Your task to perform on an android device: see tabs open on other devices in the chrome app Image 0: 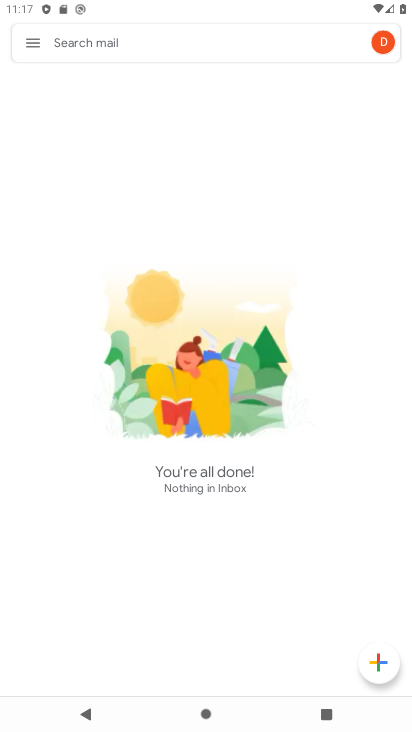
Step 0: press home button
Your task to perform on an android device: see tabs open on other devices in the chrome app Image 1: 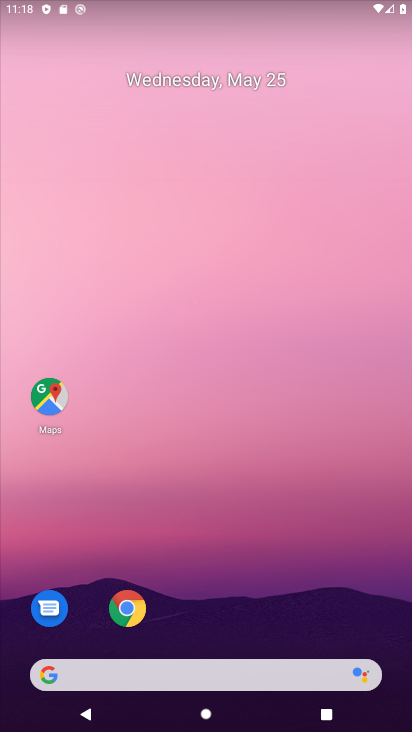
Step 1: click (132, 610)
Your task to perform on an android device: see tabs open on other devices in the chrome app Image 2: 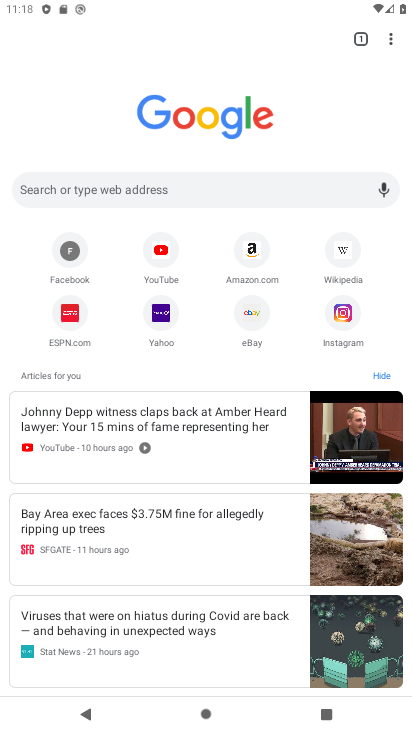
Step 2: click (402, 36)
Your task to perform on an android device: see tabs open on other devices in the chrome app Image 3: 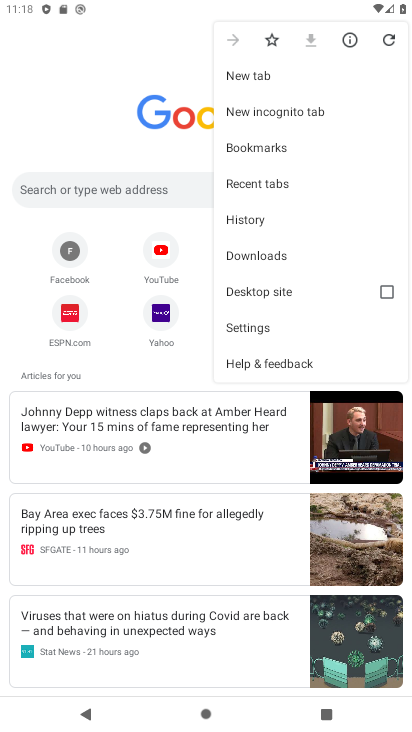
Step 3: click (253, 330)
Your task to perform on an android device: see tabs open on other devices in the chrome app Image 4: 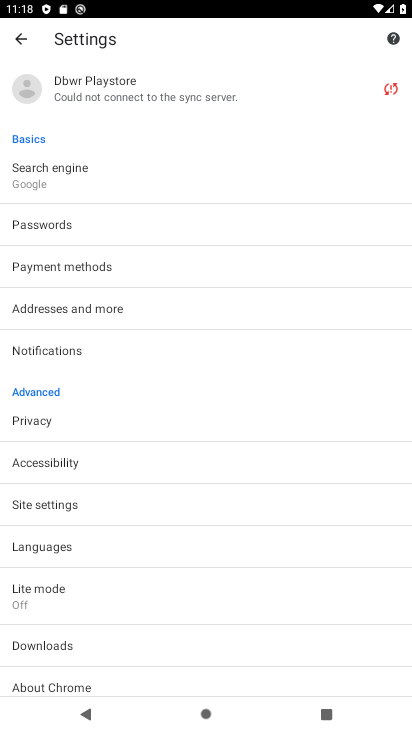
Step 4: click (12, 35)
Your task to perform on an android device: see tabs open on other devices in the chrome app Image 5: 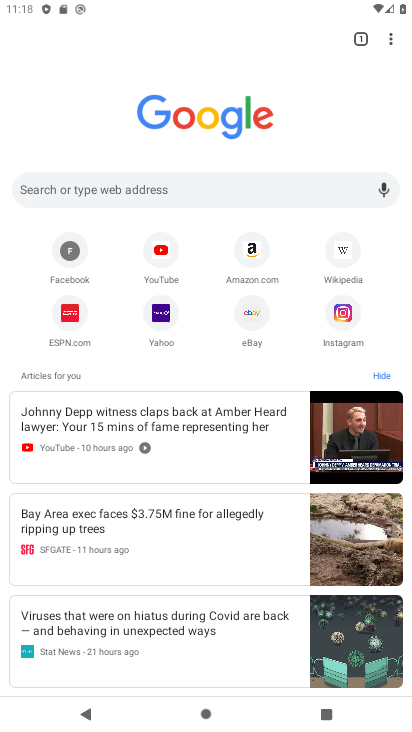
Step 5: click (389, 33)
Your task to perform on an android device: see tabs open on other devices in the chrome app Image 6: 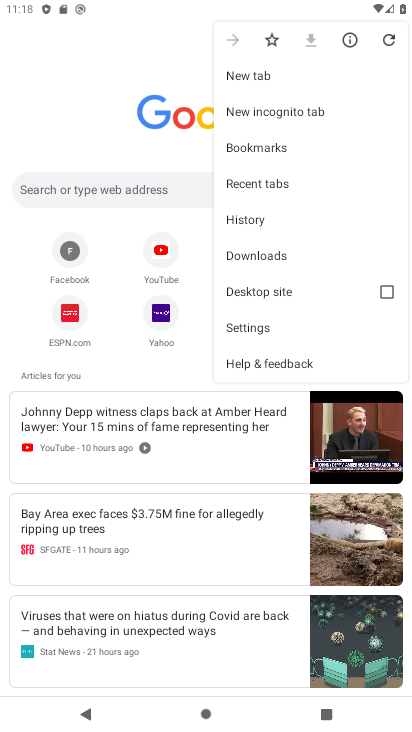
Step 6: click (244, 190)
Your task to perform on an android device: see tabs open on other devices in the chrome app Image 7: 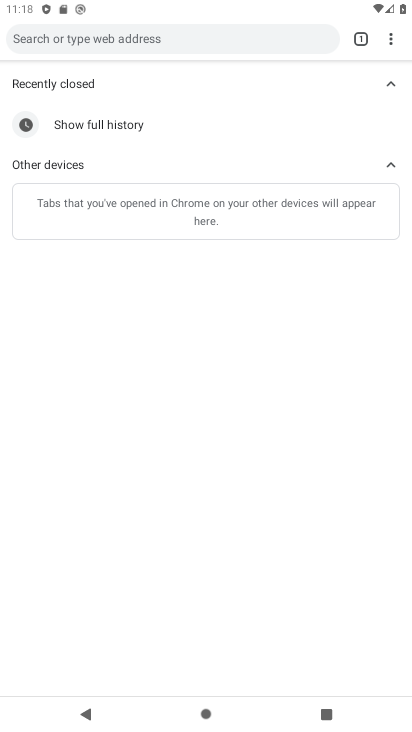
Step 7: task complete